Your task to perform on an android device: toggle wifi Image 0: 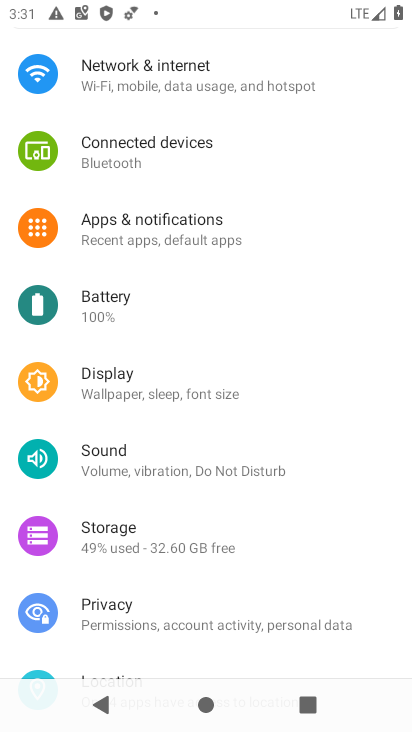
Step 0: press home button
Your task to perform on an android device: toggle wifi Image 1: 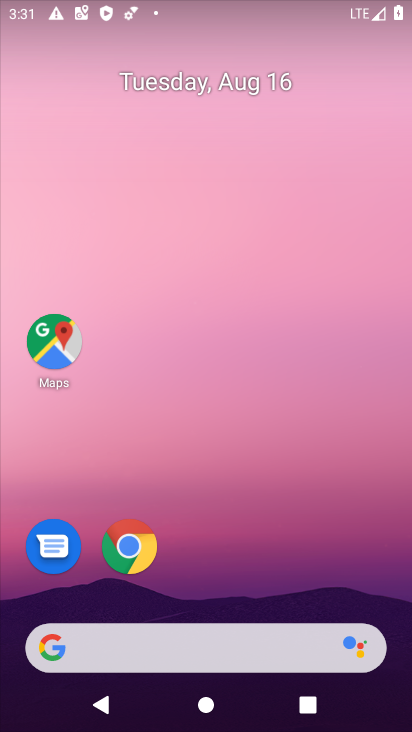
Step 1: drag from (303, 589) to (362, 161)
Your task to perform on an android device: toggle wifi Image 2: 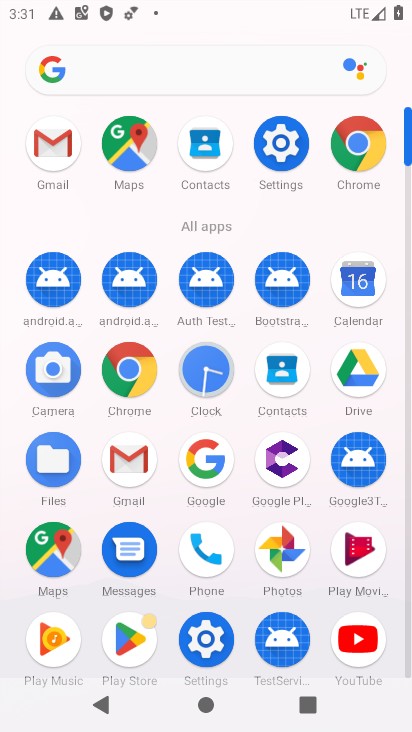
Step 2: click (284, 143)
Your task to perform on an android device: toggle wifi Image 3: 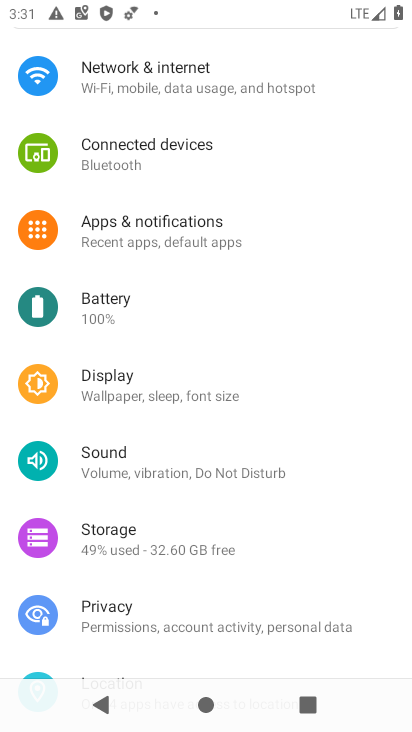
Step 3: drag from (321, 183) to (340, 311)
Your task to perform on an android device: toggle wifi Image 4: 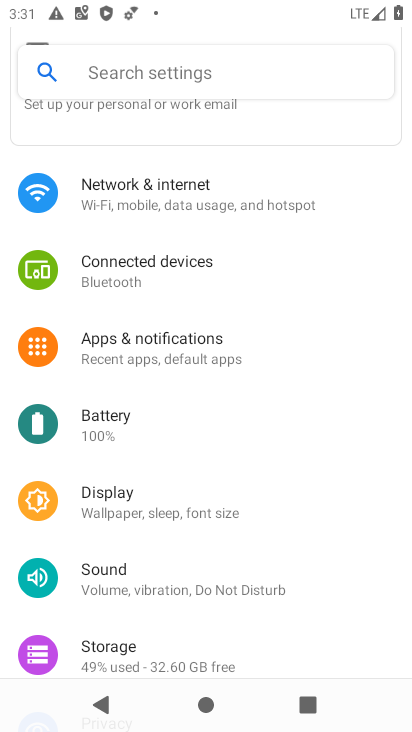
Step 4: drag from (367, 172) to (363, 398)
Your task to perform on an android device: toggle wifi Image 5: 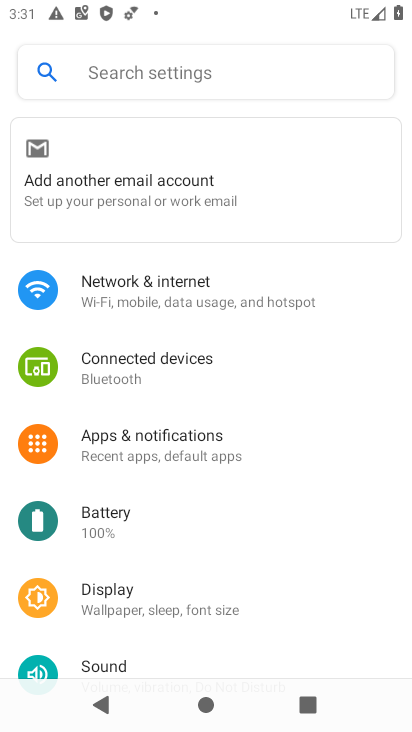
Step 5: click (250, 295)
Your task to perform on an android device: toggle wifi Image 6: 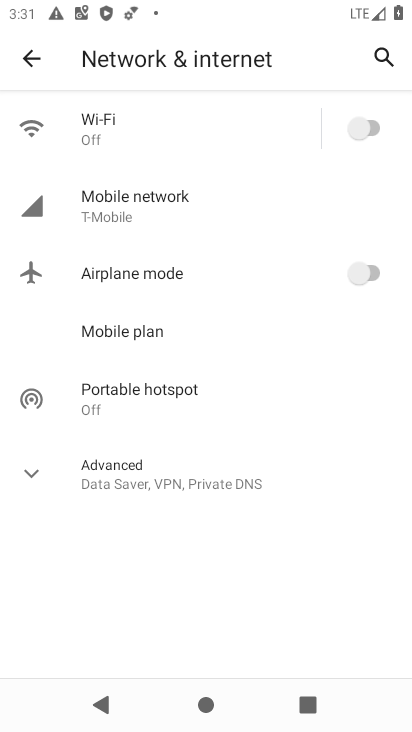
Step 6: click (141, 113)
Your task to perform on an android device: toggle wifi Image 7: 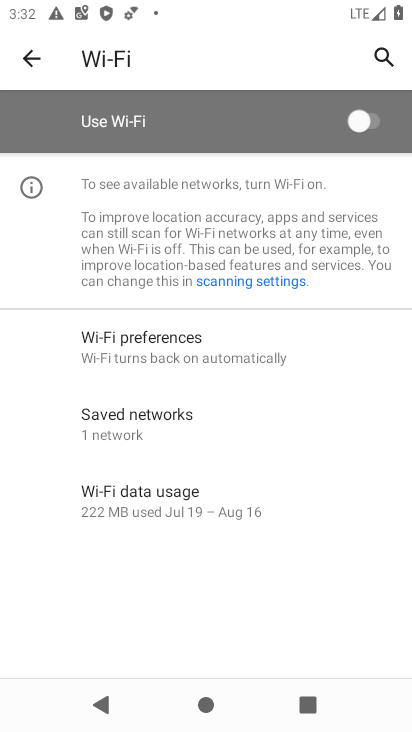
Step 7: click (354, 115)
Your task to perform on an android device: toggle wifi Image 8: 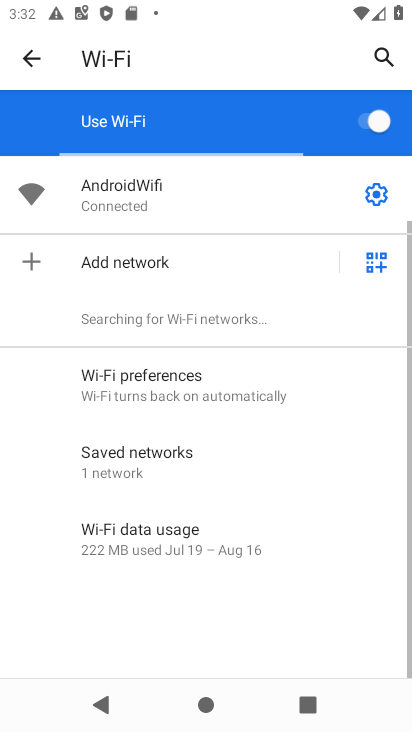
Step 8: task complete